Your task to perform on an android device: read, delete, or share a saved page in the chrome app Image 0: 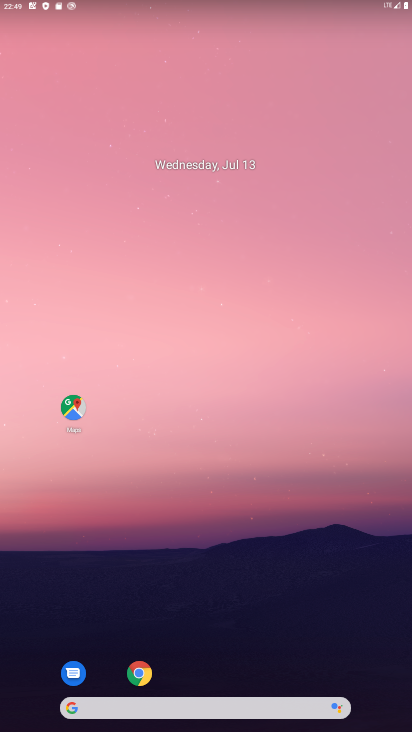
Step 0: drag from (207, 565) to (288, 265)
Your task to perform on an android device: read, delete, or share a saved page in the chrome app Image 1: 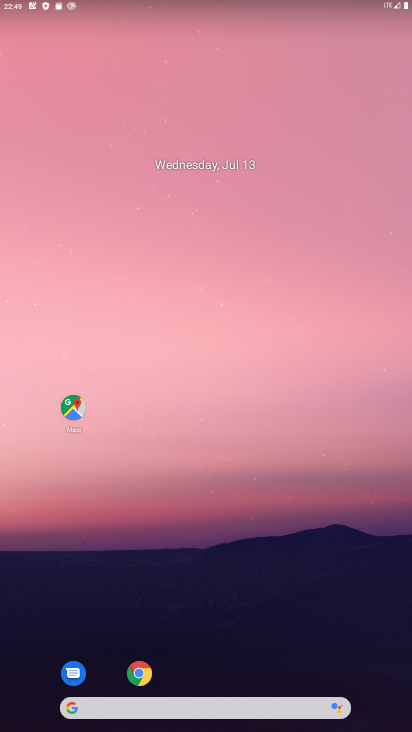
Step 1: drag from (188, 543) to (260, 3)
Your task to perform on an android device: read, delete, or share a saved page in the chrome app Image 2: 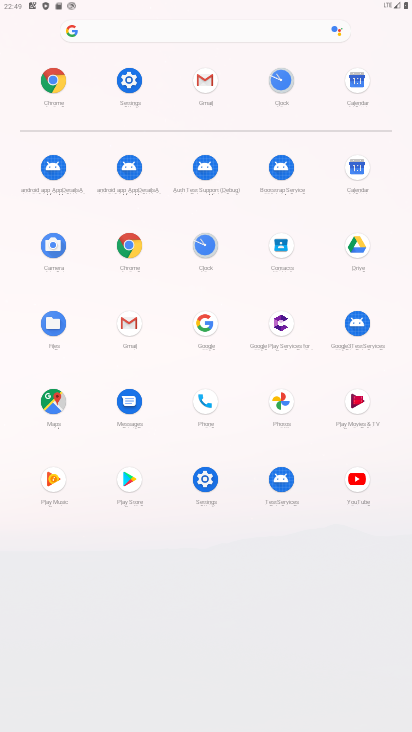
Step 2: click (131, 240)
Your task to perform on an android device: read, delete, or share a saved page in the chrome app Image 3: 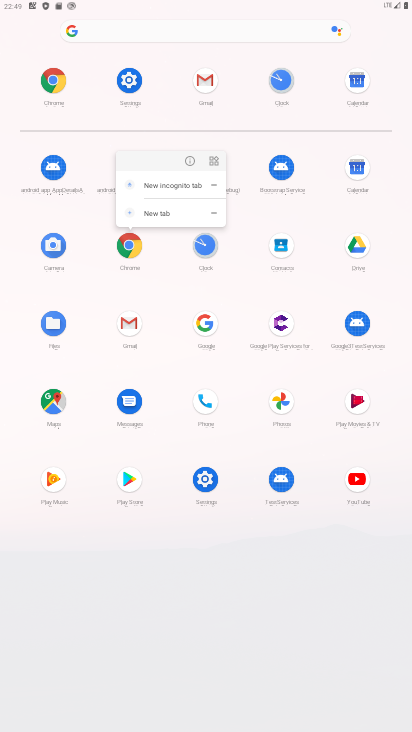
Step 3: click (189, 158)
Your task to perform on an android device: read, delete, or share a saved page in the chrome app Image 4: 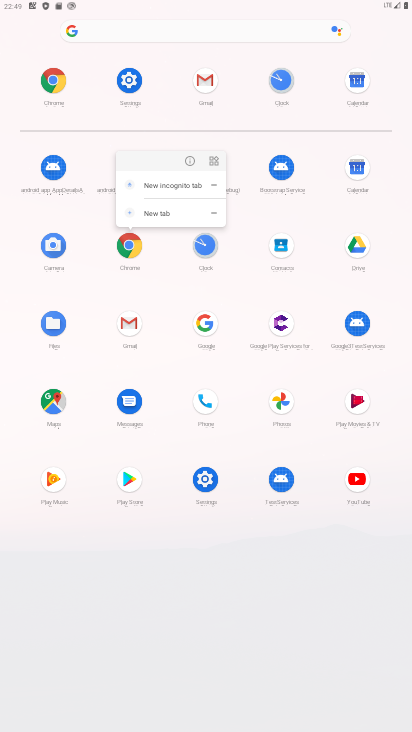
Step 4: click (189, 158)
Your task to perform on an android device: read, delete, or share a saved page in the chrome app Image 5: 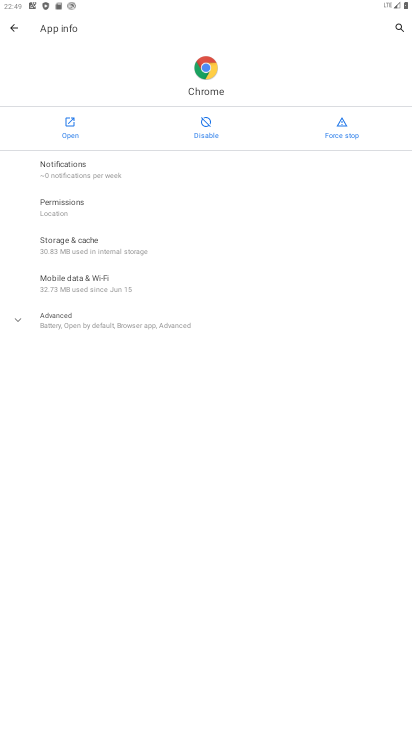
Step 5: click (82, 120)
Your task to perform on an android device: read, delete, or share a saved page in the chrome app Image 6: 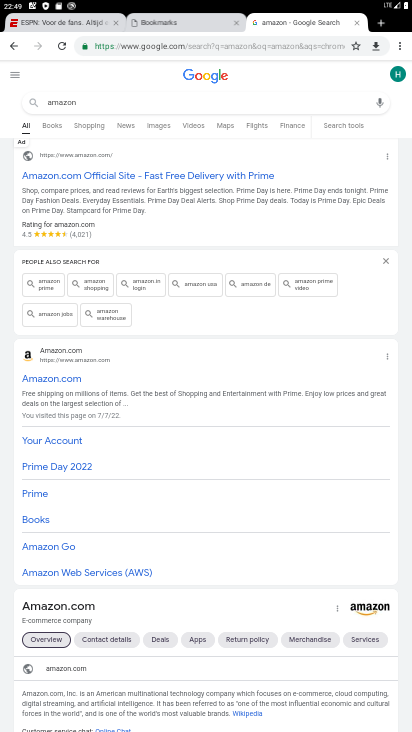
Step 6: click (401, 43)
Your task to perform on an android device: read, delete, or share a saved page in the chrome app Image 7: 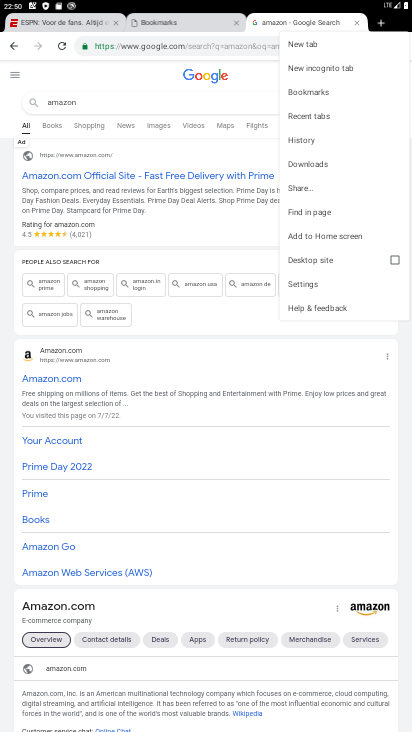
Step 7: click (305, 142)
Your task to perform on an android device: read, delete, or share a saved page in the chrome app Image 8: 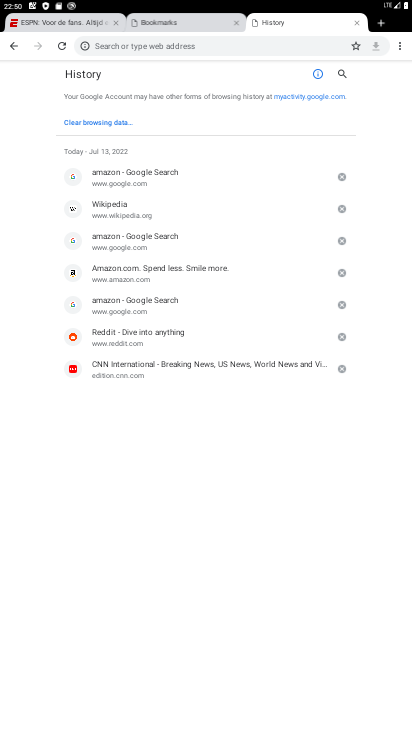
Step 8: click (398, 48)
Your task to perform on an android device: read, delete, or share a saved page in the chrome app Image 9: 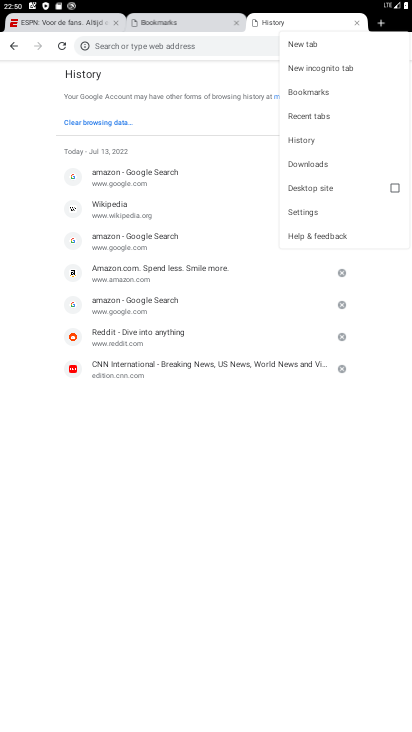
Step 9: click (317, 86)
Your task to perform on an android device: read, delete, or share a saved page in the chrome app Image 10: 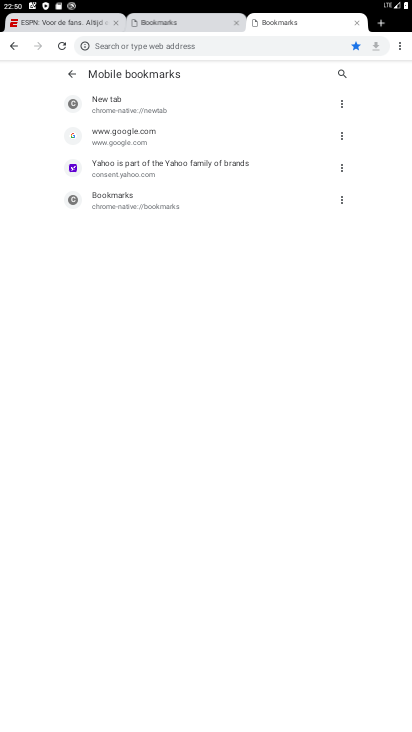
Step 10: click (346, 99)
Your task to perform on an android device: read, delete, or share a saved page in the chrome app Image 11: 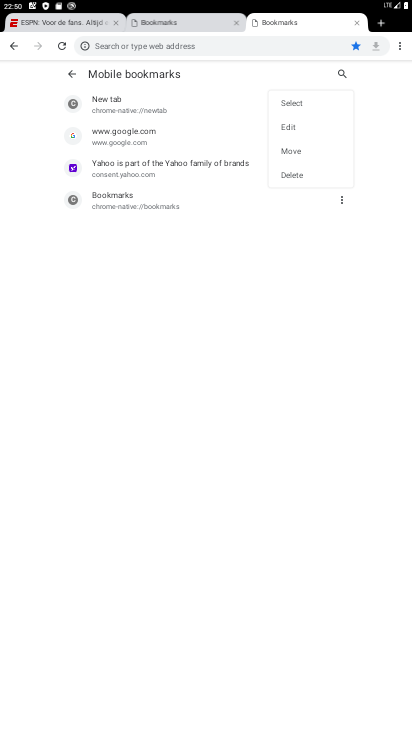
Step 11: click (287, 172)
Your task to perform on an android device: read, delete, or share a saved page in the chrome app Image 12: 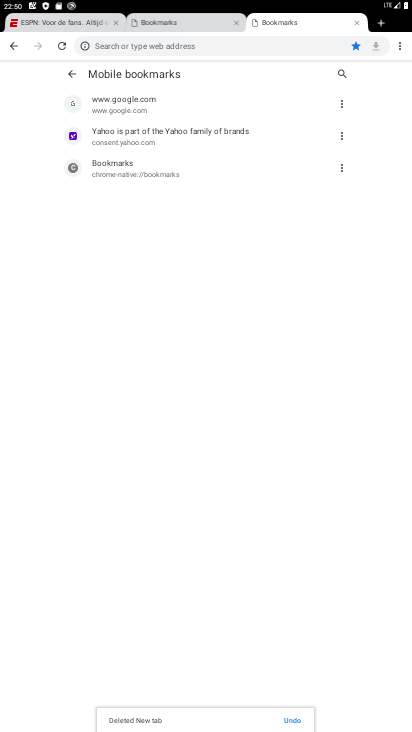
Step 12: task complete